Your task to perform on an android device: Find coffee shops on Maps Image 0: 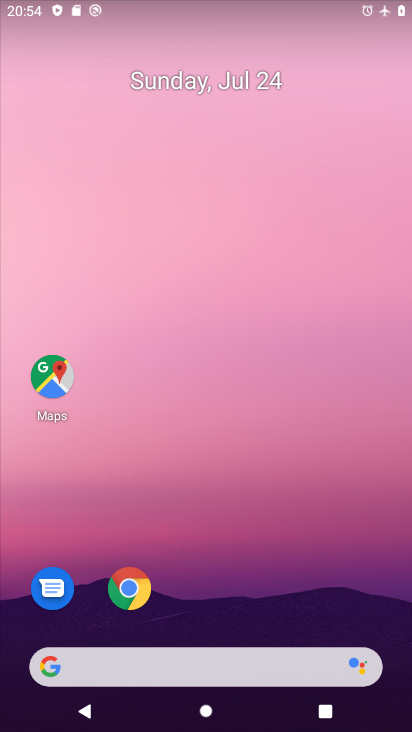
Step 0: drag from (187, 615) to (189, 178)
Your task to perform on an android device: Find coffee shops on Maps Image 1: 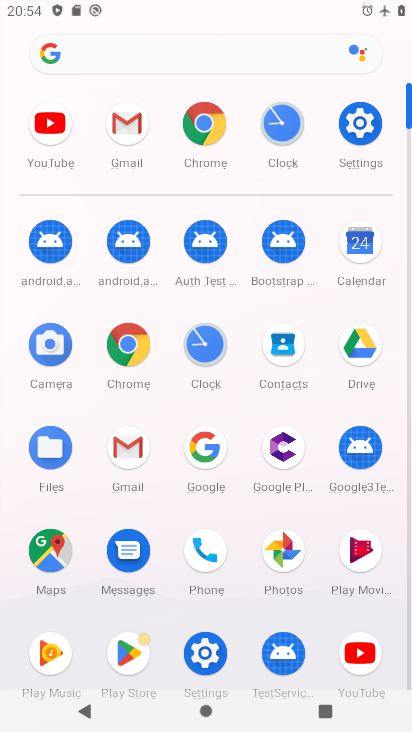
Step 1: click (42, 551)
Your task to perform on an android device: Find coffee shops on Maps Image 2: 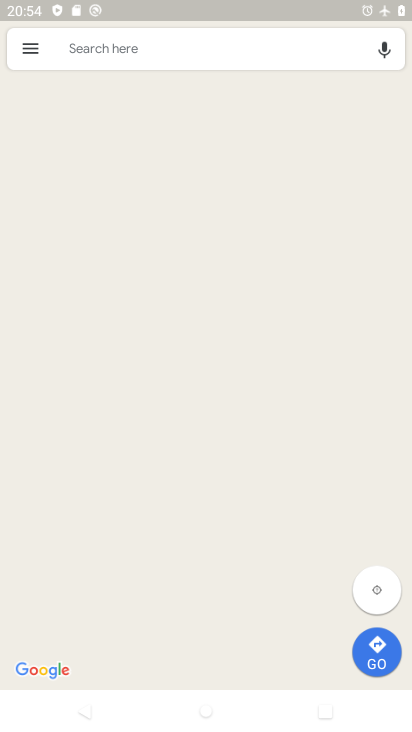
Step 2: click (77, 33)
Your task to perform on an android device: Find coffee shops on Maps Image 3: 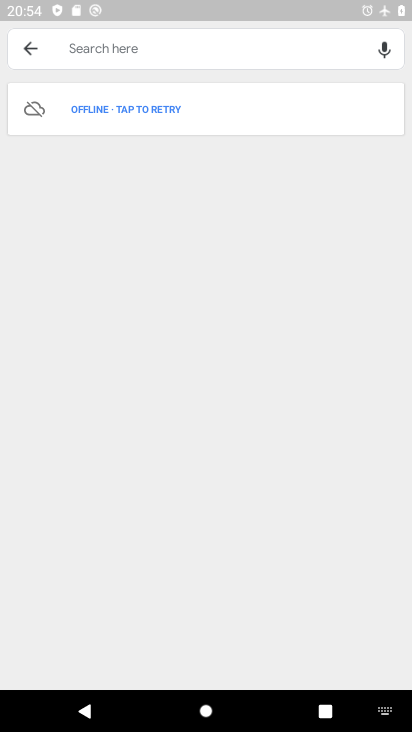
Step 3: click (146, 55)
Your task to perform on an android device: Find coffee shops on Maps Image 4: 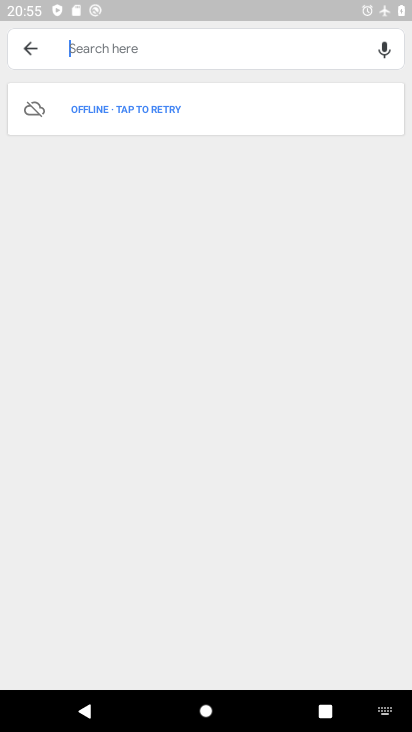
Step 4: click (190, 39)
Your task to perform on an android device: Find coffee shops on Maps Image 5: 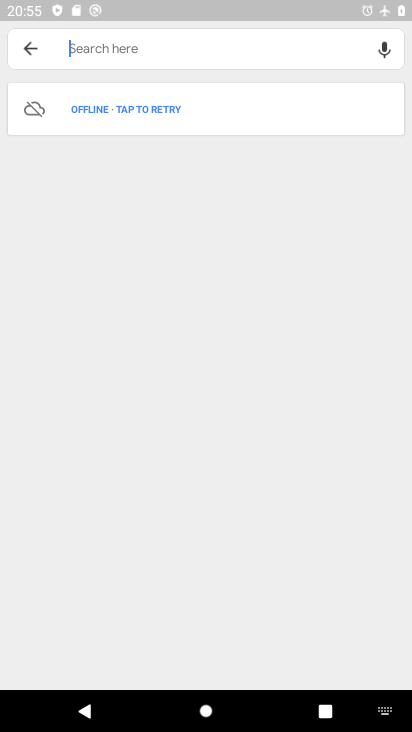
Step 5: type " coffee shops  "
Your task to perform on an android device: Find coffee shops on Maps Image 6: 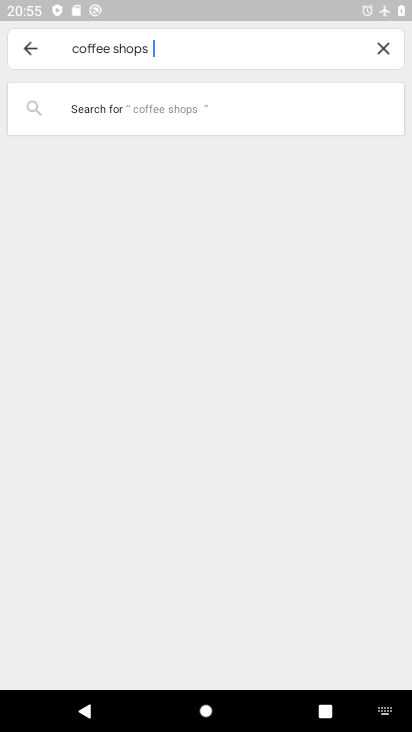
Step 6: task complete